Your task to perform on an android device: Show me productivity apps on the Play Store Image 0: 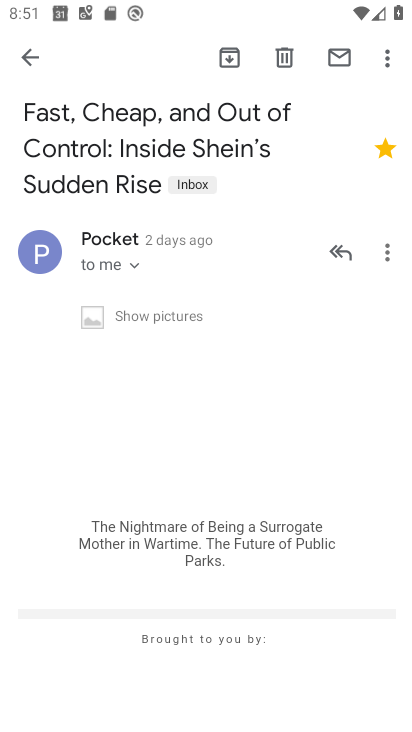
Step 0: press home button
Your task to perform on an android device: Show me productivity apps on the Play Store Image 1: 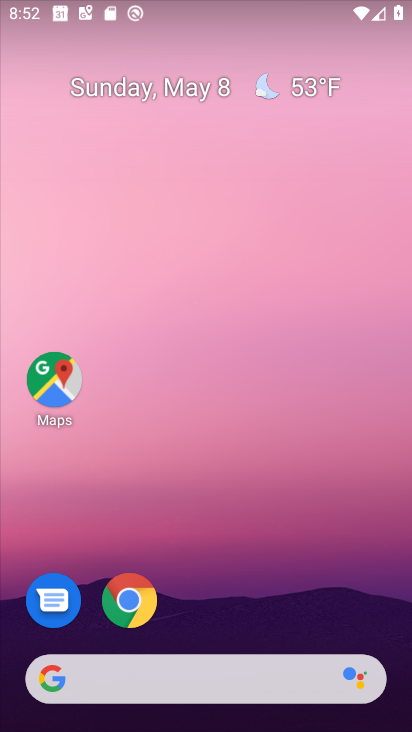
Step 1: drag from (159, 567) to (100, 164)
Your task to perform on an android device: Show me productivity apps on the Play Store Image 2: 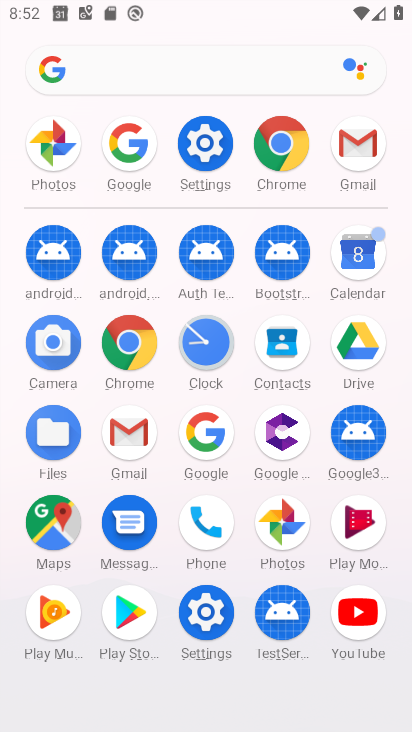
Step 2: click (92, 622)
Your task to perform on an android device: Show me productivity apps on the Play Store Image 3: 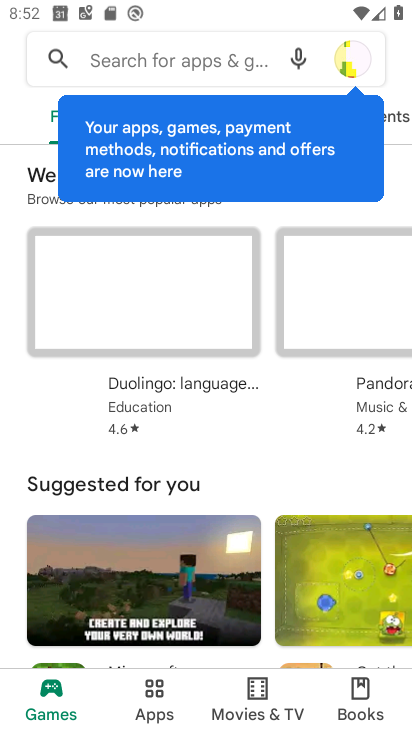
Step 3: click (151, 50)
Your task to perform on an android device: Show me productivity apps on the Play Store Image 4: 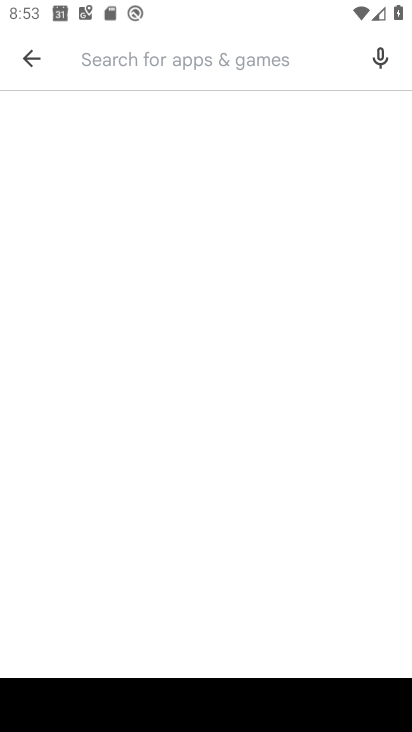
Step 4: type "productivity aaps"
Your task to perform on an android device: Show me productivity apps on the Play Store Image 5: 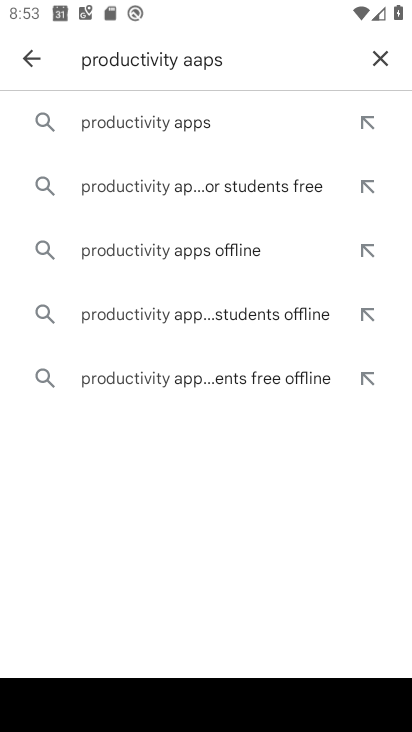
Step 5: click (281, 120)
Your task to perform on an android device: Show me productivity apps on the Play Store Image 6: 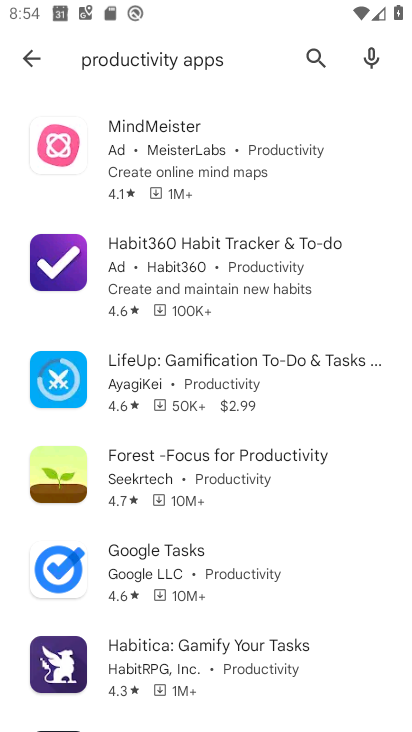
Step 6: task complete